Your task to perform on an android device: Go to ESPN.com Image 0: 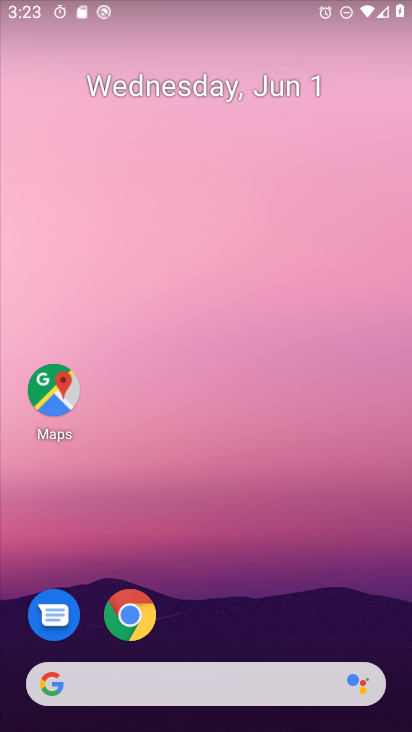
Step 0: drag from (260, 576) to (285, 208)
Your task to perform on an android device: Go to ESPN.com Image 1: 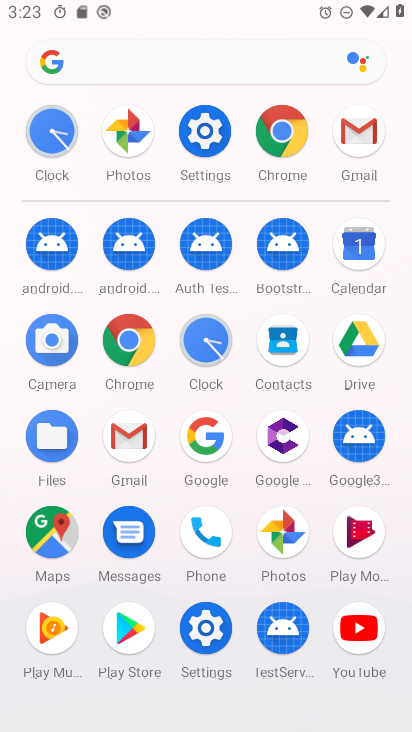
Step 1: click (135, 334)
Your task to perform on an android device: Go to ESPN.com Image 2: 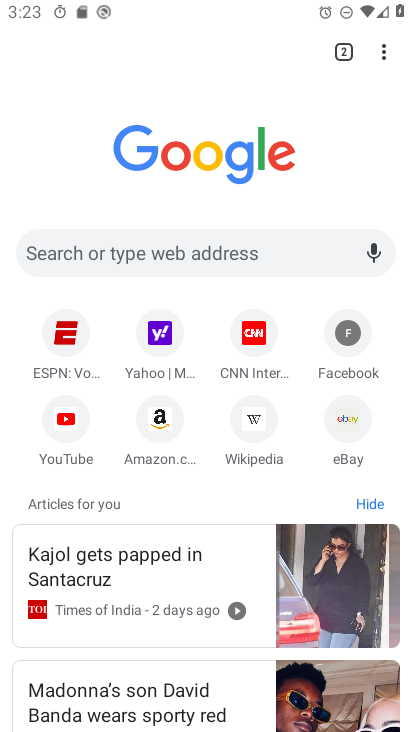
Step 2: click (257, 254)
Your task to perform on an android device: Go to ESPN.com Image 3: 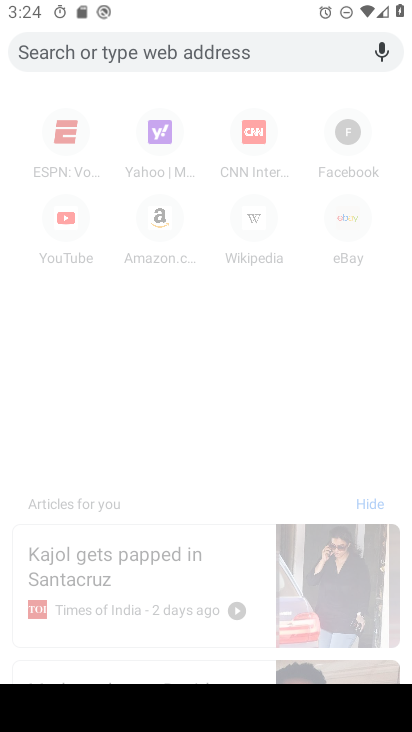
Step 3: type "espn.com"
Your task to perform on an android device: Go to ESPN.com Image 4: 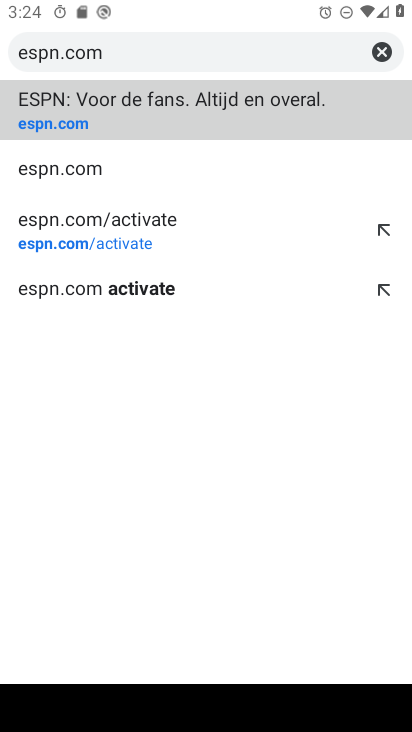
Step 4: click (139, 169)
Your task to perform on an android device: Go to ESPN.com Image 5: 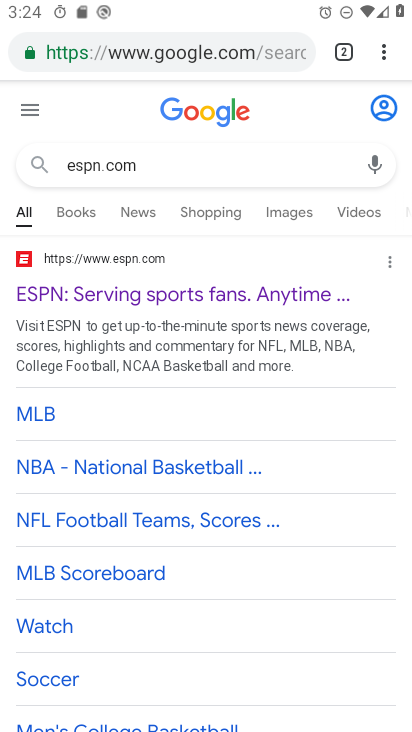
Step 5: click (145, 296)
Your task to perform on an android device: Go to ESPN.com Image 6: 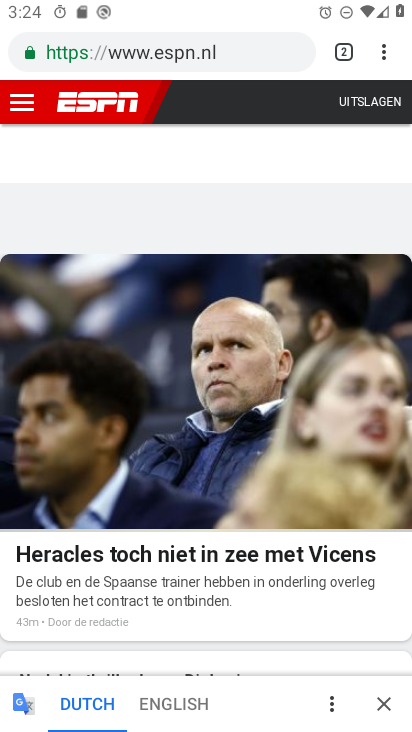
Step 6: task complete